Your task to perform on an android device: change the clock display to digital Image 0: 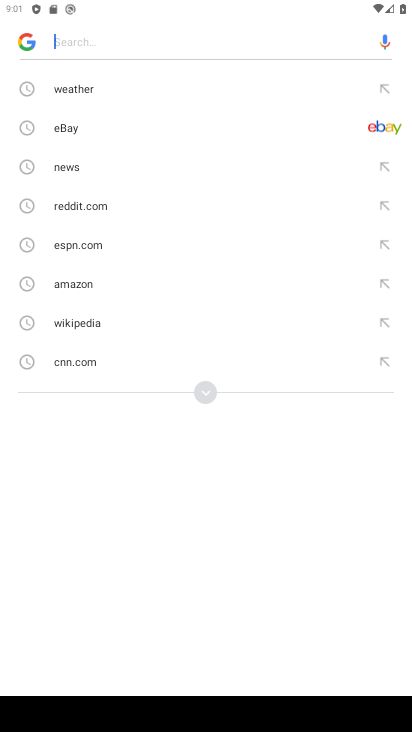
Step 0: press home button
Your task to perform on an android device: change the clock display to digital Image 1: 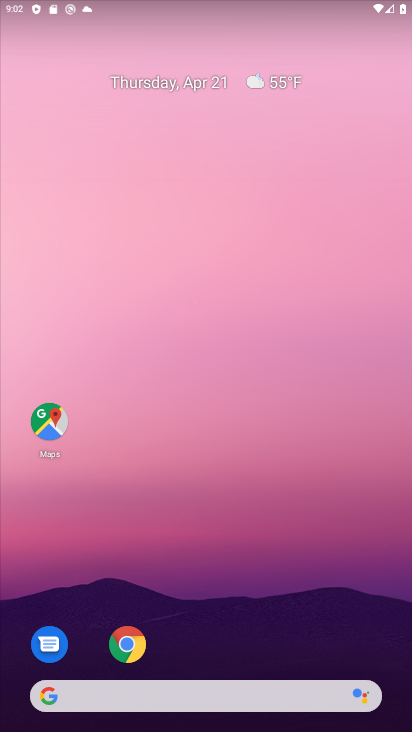
Step 1: drag from (199, 659) to (218, 221)
Your task to perform on an android device: change the clock display to digital Image 2: 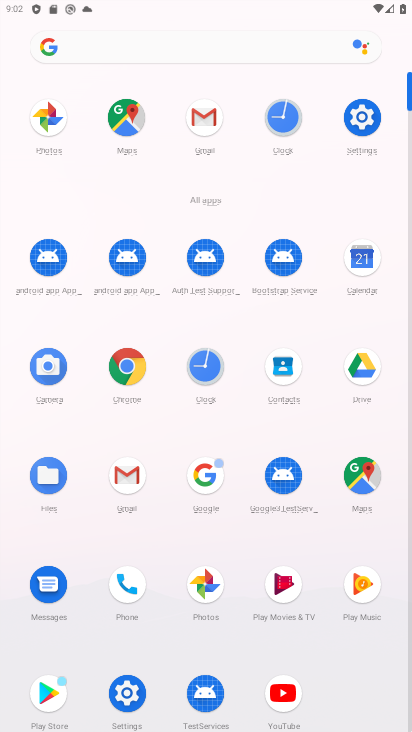
Step 2: click (362, 121)
Your task to perform on an android device: change the clock display to digital Image 3: 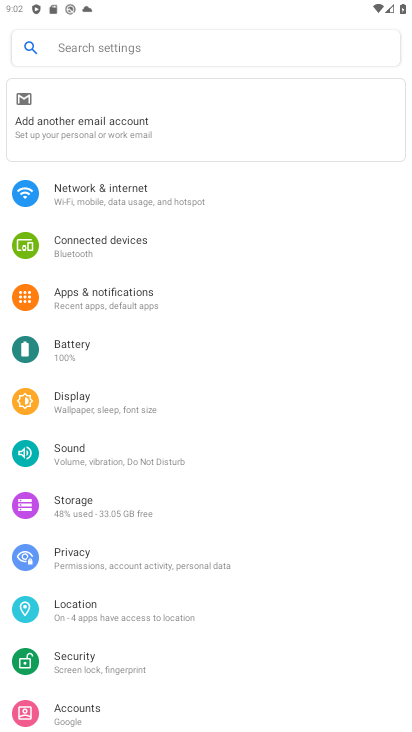
Step 3: press home button
Your task to perform on an android device: change the clock display to digital Image 4: 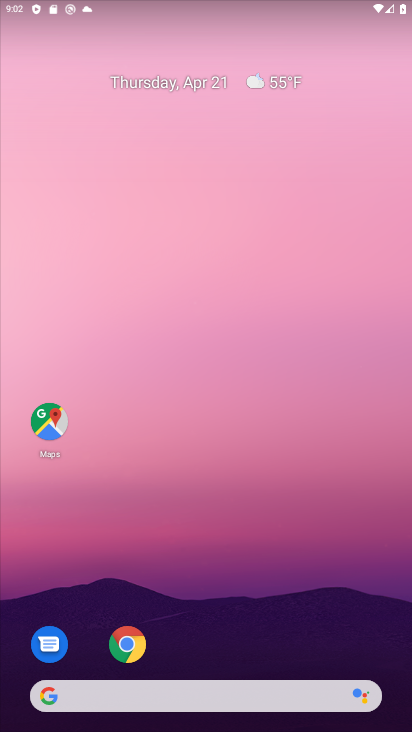
Step 4: drag from (227, 454) to (244, 234)
Your task to perform on an android device: change the clock display to digital Image 5: 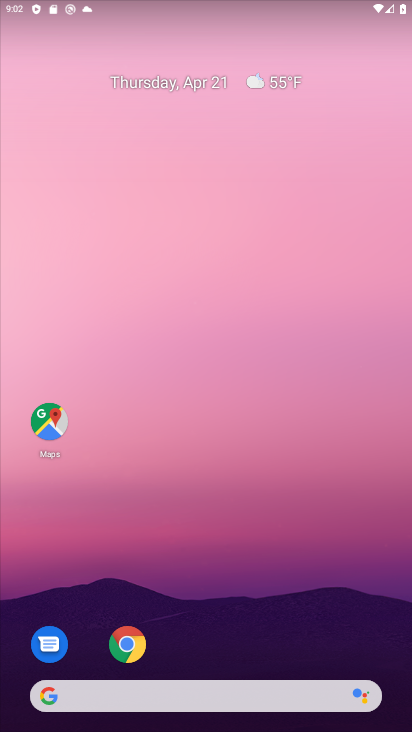
Step 5: drag from (210, 667) to (253, 158)
Your task to perform on an android device: change the clock display to digital Image 6: 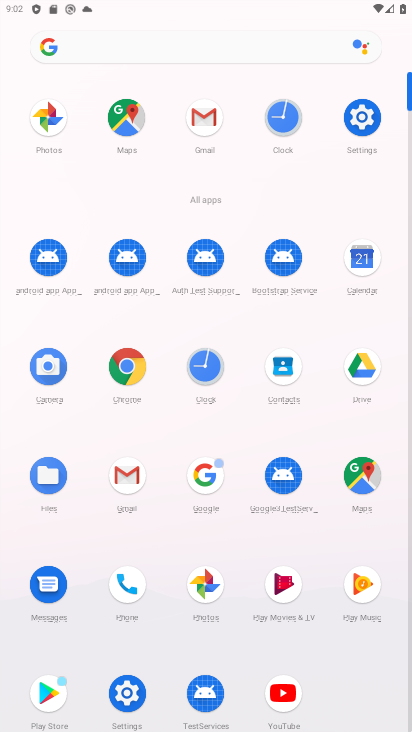
Step 6: click (209, 374)
Your task to perform on an android device: change the clock display to digital Image 7: 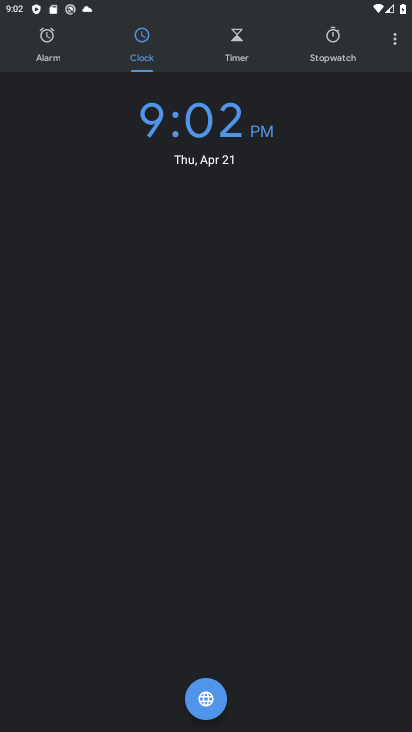
Step 7: click (396, 39)
Your task to perform on an android device: change the clock display to digital Image 8: 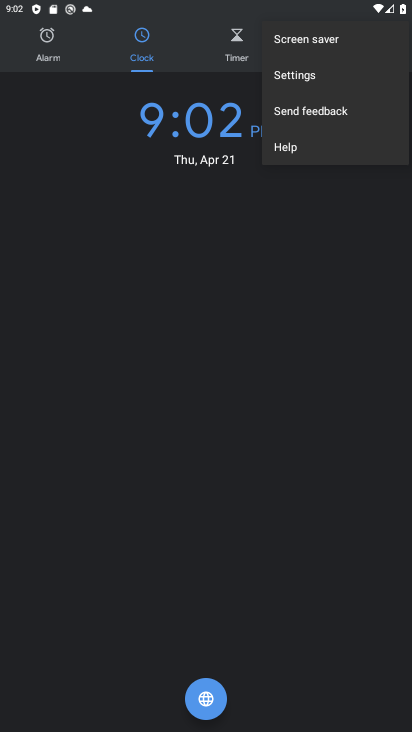
Step 8: click (312, 83)
Your task to perform on an android device: change the clock display to digital Image 9: 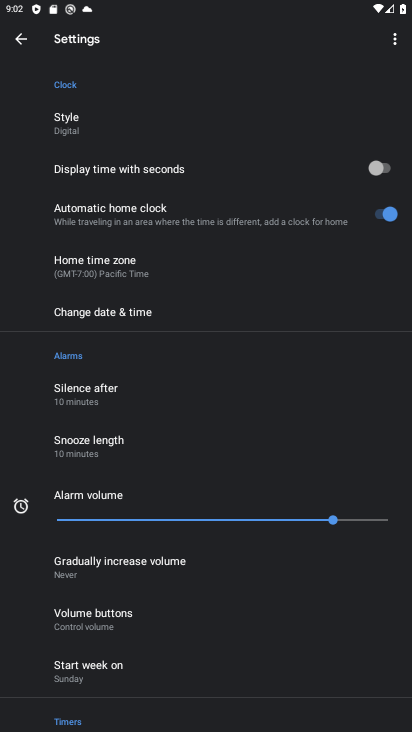
Step 9: click (108, 125)
Your task to perform on an android device: change the clock display to digital Image 10: 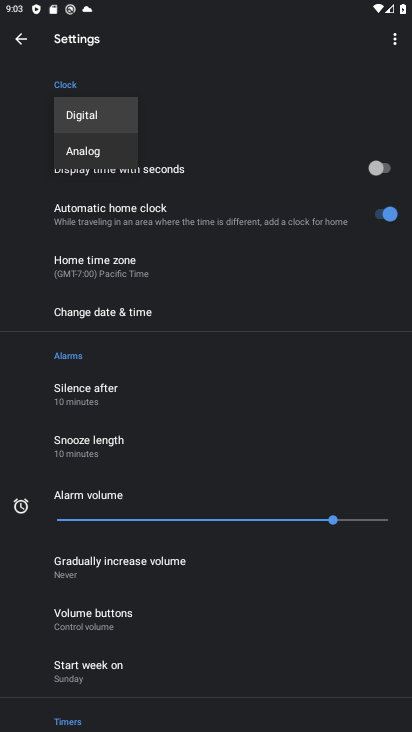
Step 10: task complete